Your task to perform on an android device: Open display settings Image 0: 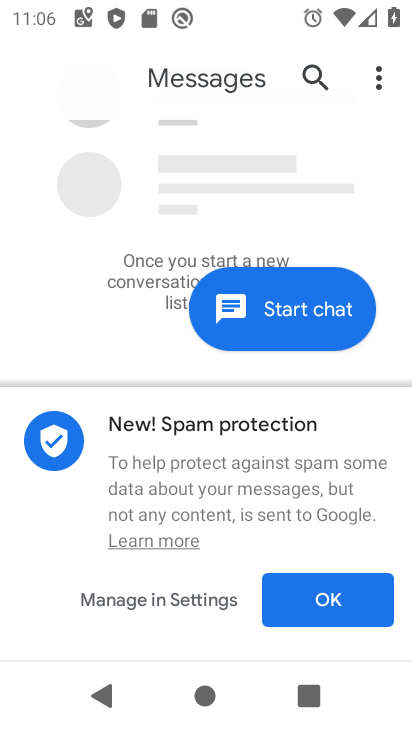
Step 0: press home button
Your task to perform on an android device: Open display settings Image 1: 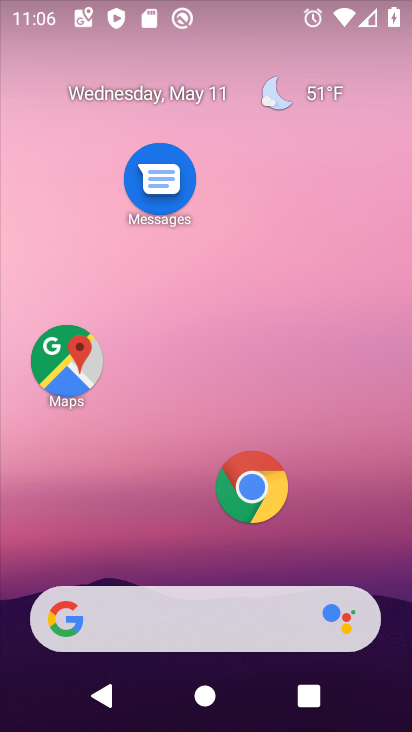
Step 1: drag from (185, 516) to (198, 173)
Your task to perform on an android device: Open display settings Image 2: 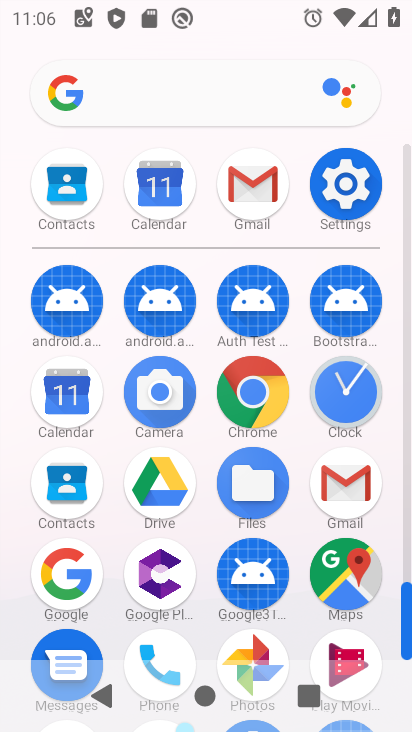
Step 2: click (324, 214)
Your task to perform on an android device: Open display settings Image 3: 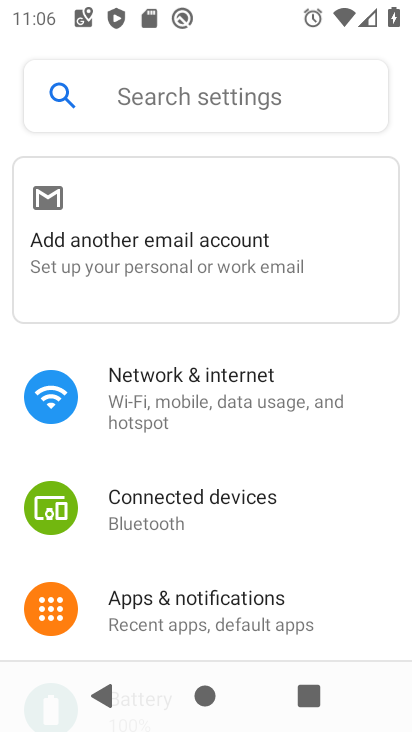
Step 3: drag from (217, 608) to (221, 341)
Your task to perform on an android device: Open display settings Image 4: 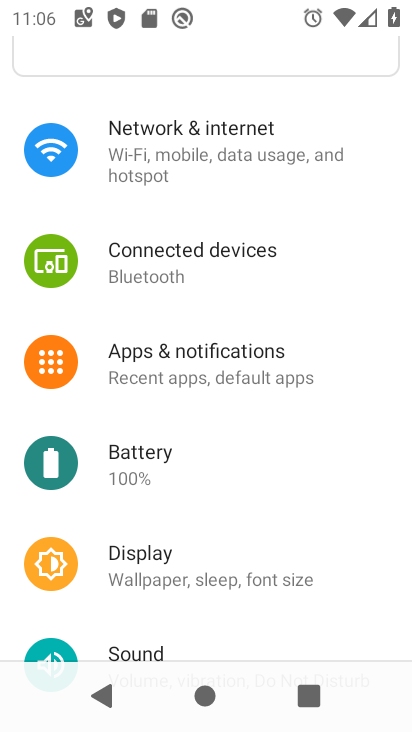
Step 4: click (154, 545)
Your task to perform on an android device: Open display settings Image 5: 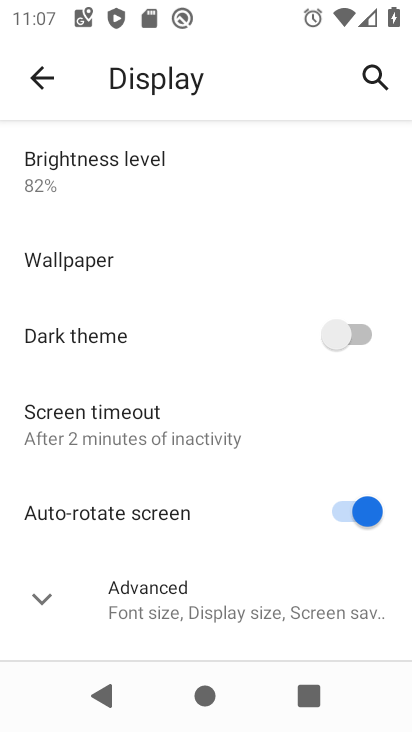
Step 5: task complete